Your task to perform on an android device: Open sound settings Image 0: 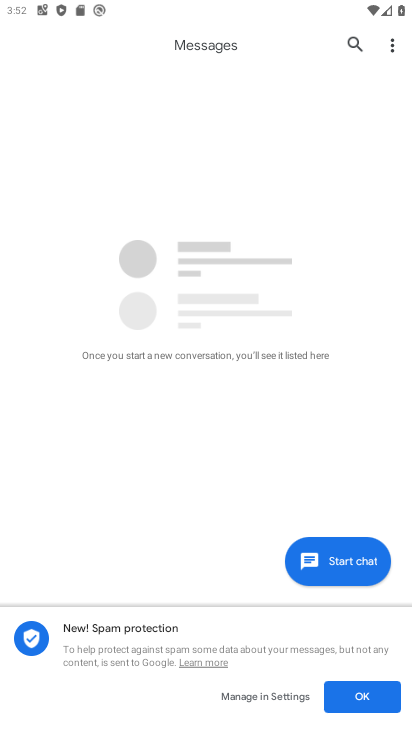
Step 0: press home button
Your task to perform on an android device: Open sound settings Image 1: 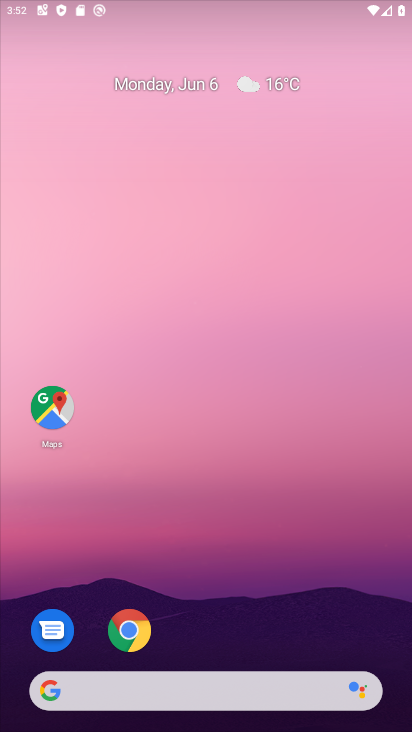
Step 1: drag from (132, 684) to (300, 107)
Your task to perform on an android device: Open sound settings Image 2: 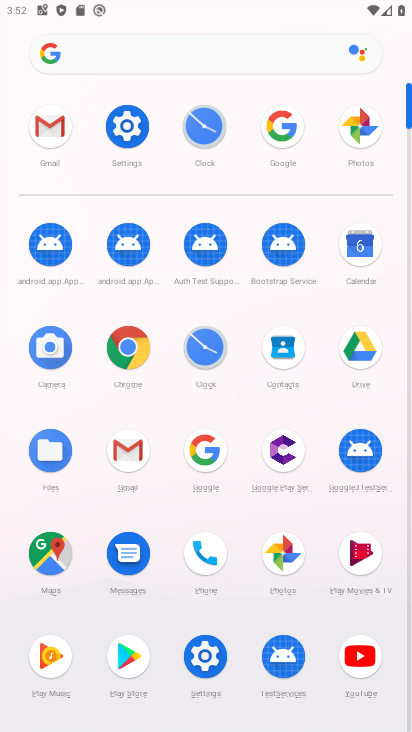
Step 2: click (121, 107)
Your task to perform on an android device: Open sound settings Image 3: 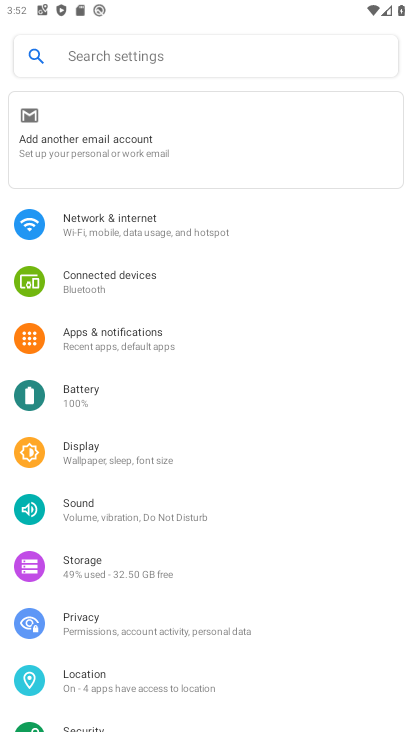
Step 3: click (103, 503)
Your task to perform on an android device: Open sound settings Image 4: 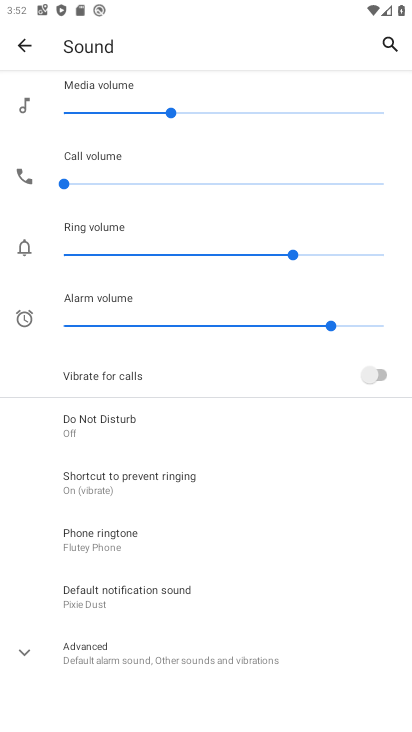
Step 4: task complete